Your task to perform on an android device: uninstall "HBO Max: Stream TV & Movies" Image 0: 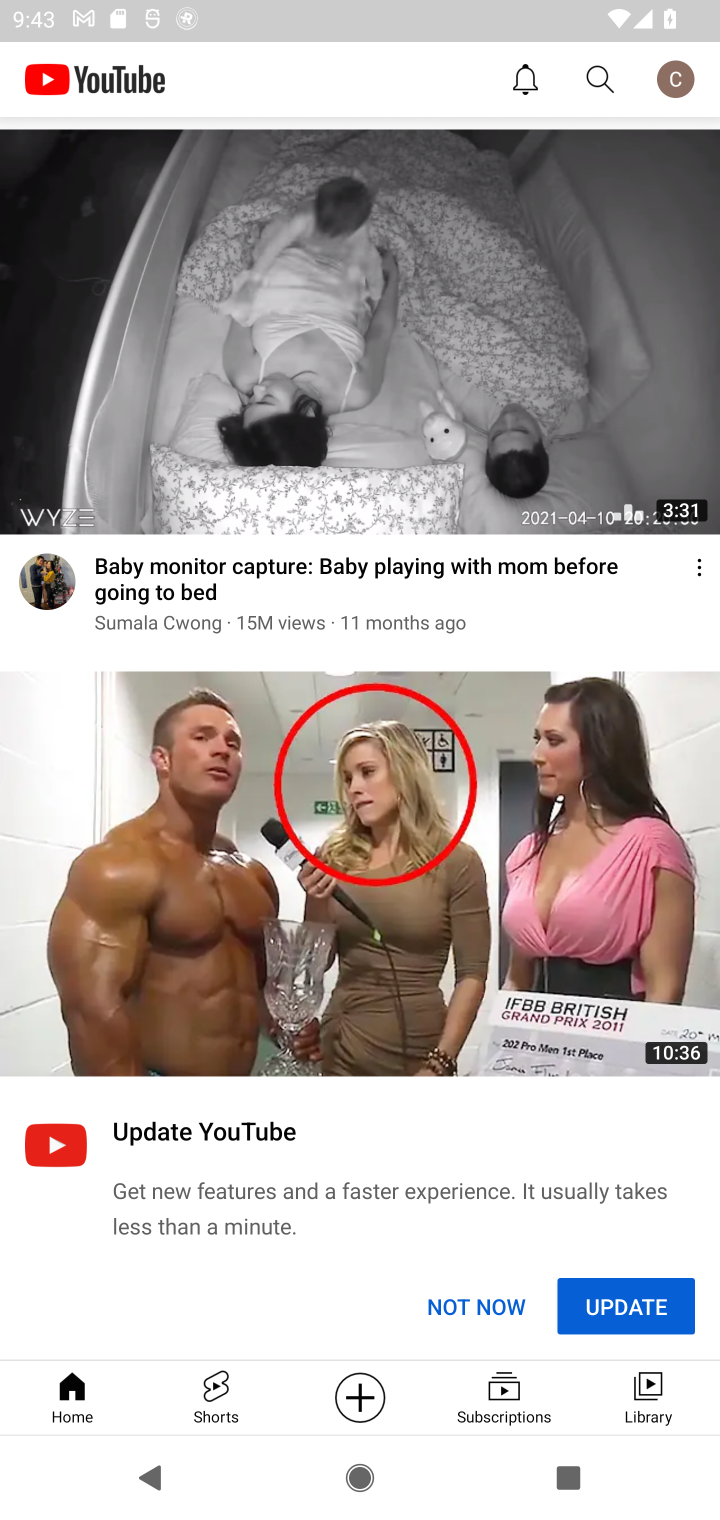
Step 0: press home button
Your task to perform on an android device: uninstall "HBO Max: Stream TV & Movies" Image 1: 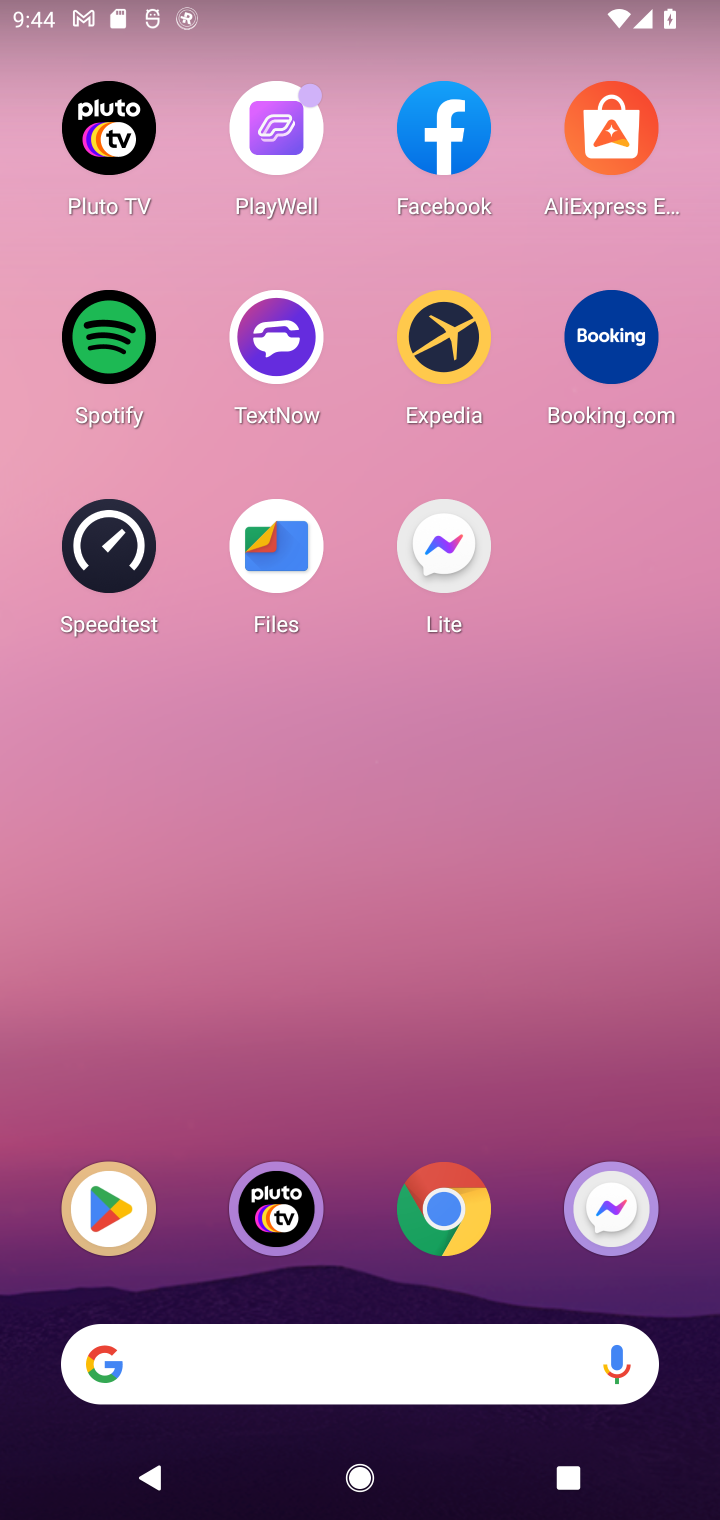
Step 1: drag from (279, 1351) to (403, 239)
Your task to perform on an android device: uninstall "HBO Max: Stream TV & Movies" Image 2: 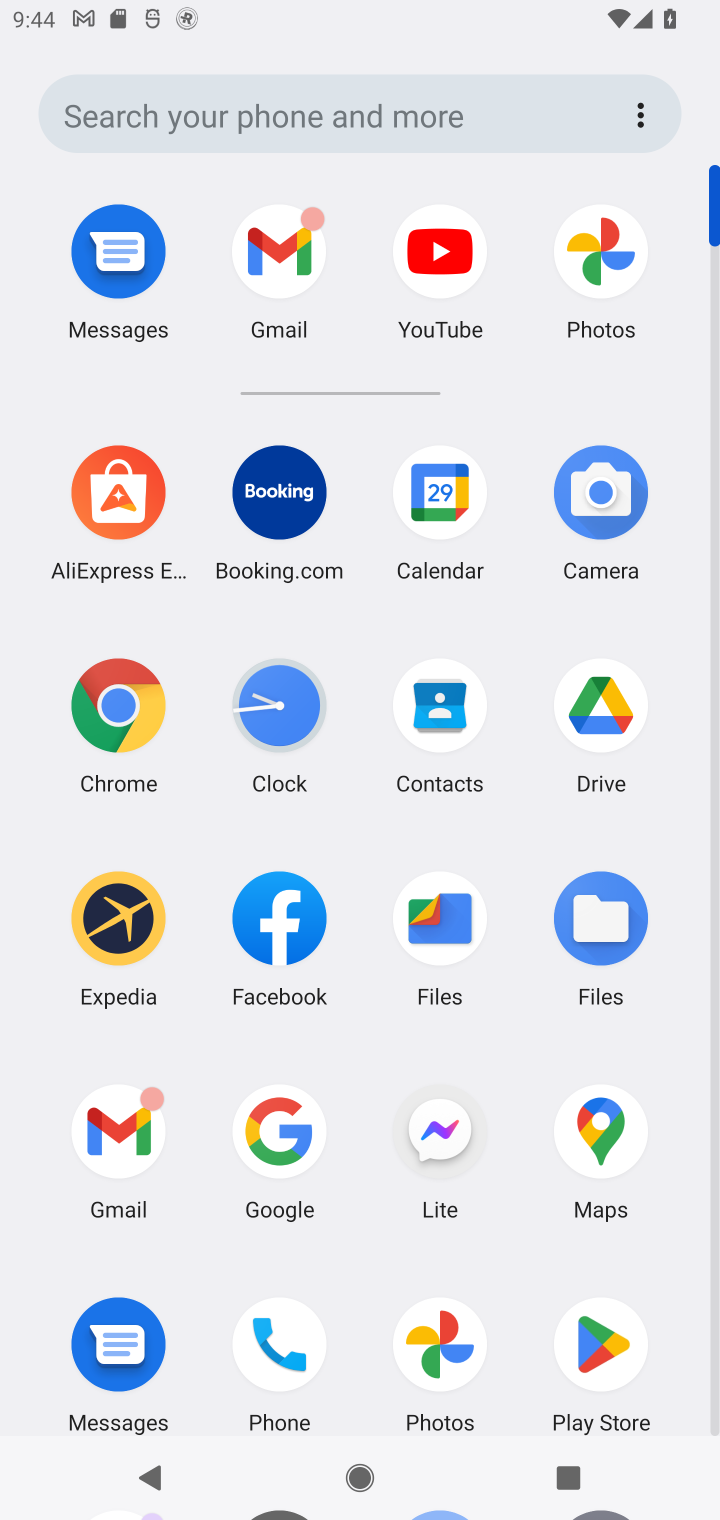
Step 2: drag from (359, 1249) to (353, 730)
Your task to perform on an android device: uninstall "HBO Max: Stream TV & Movies" Image 3: 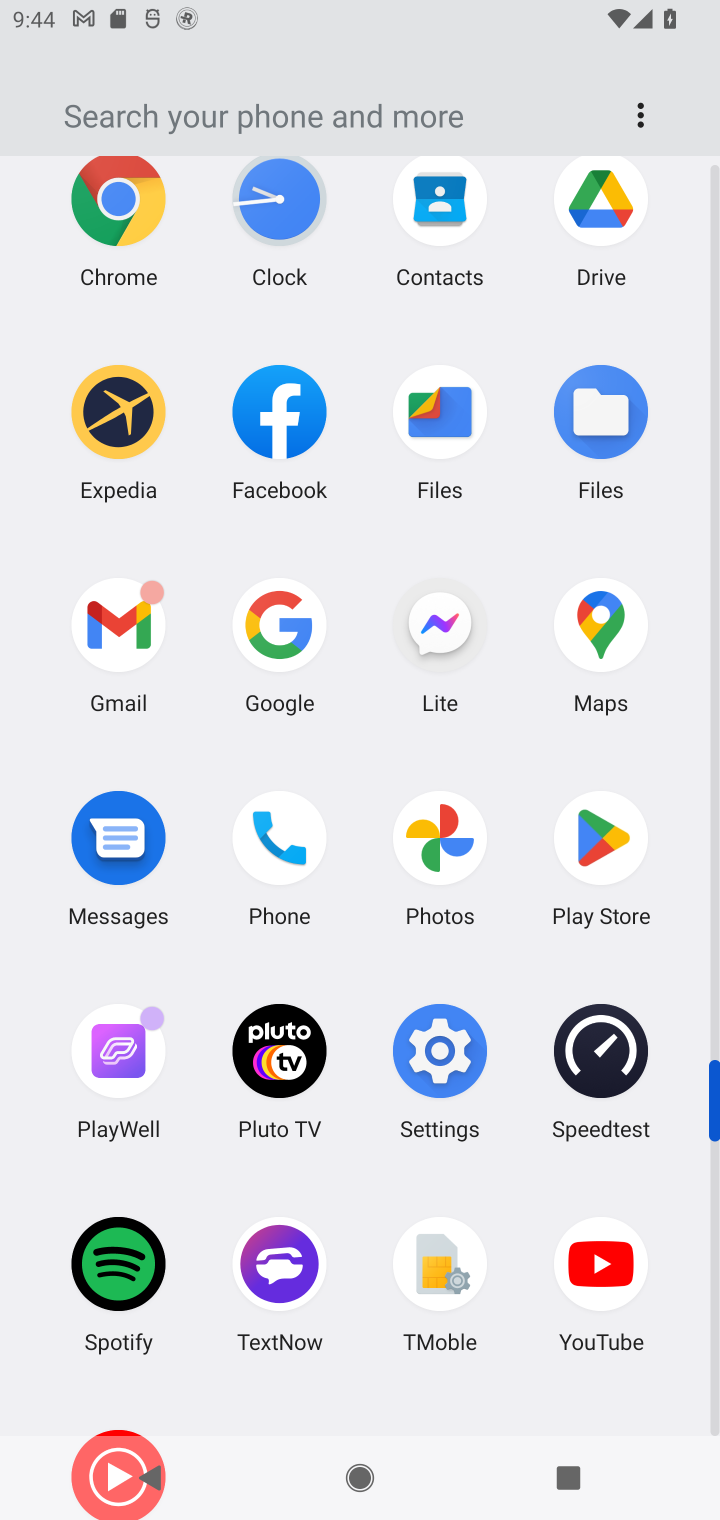
Step 3: click (593, 856)
Your task to perform on an android device: uninstall "HBO Max: Stream TV & Movies" Image 4: 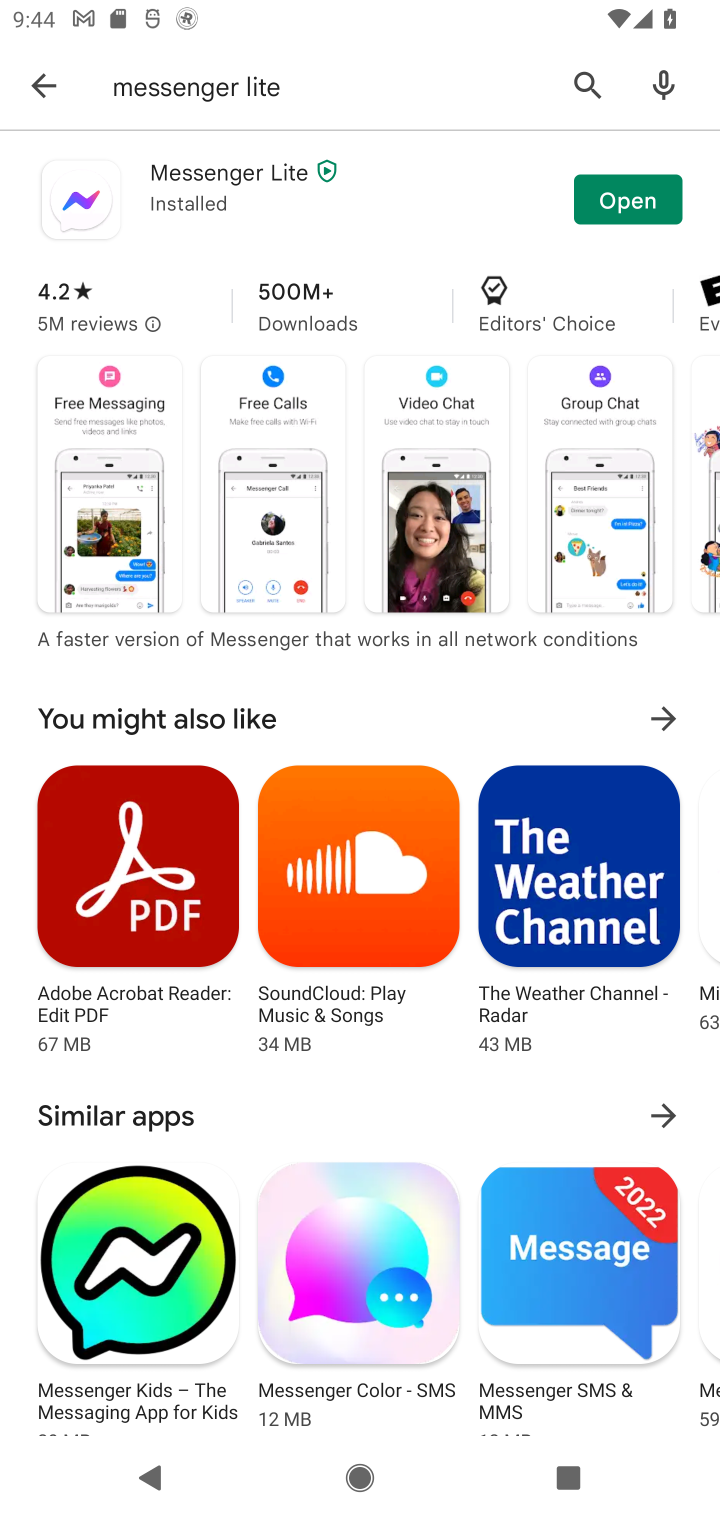
Step 4: click (521, 103)
Your task to perform on an android device: uninstall "HBO Max: Stream TV & Movies" Image 5: 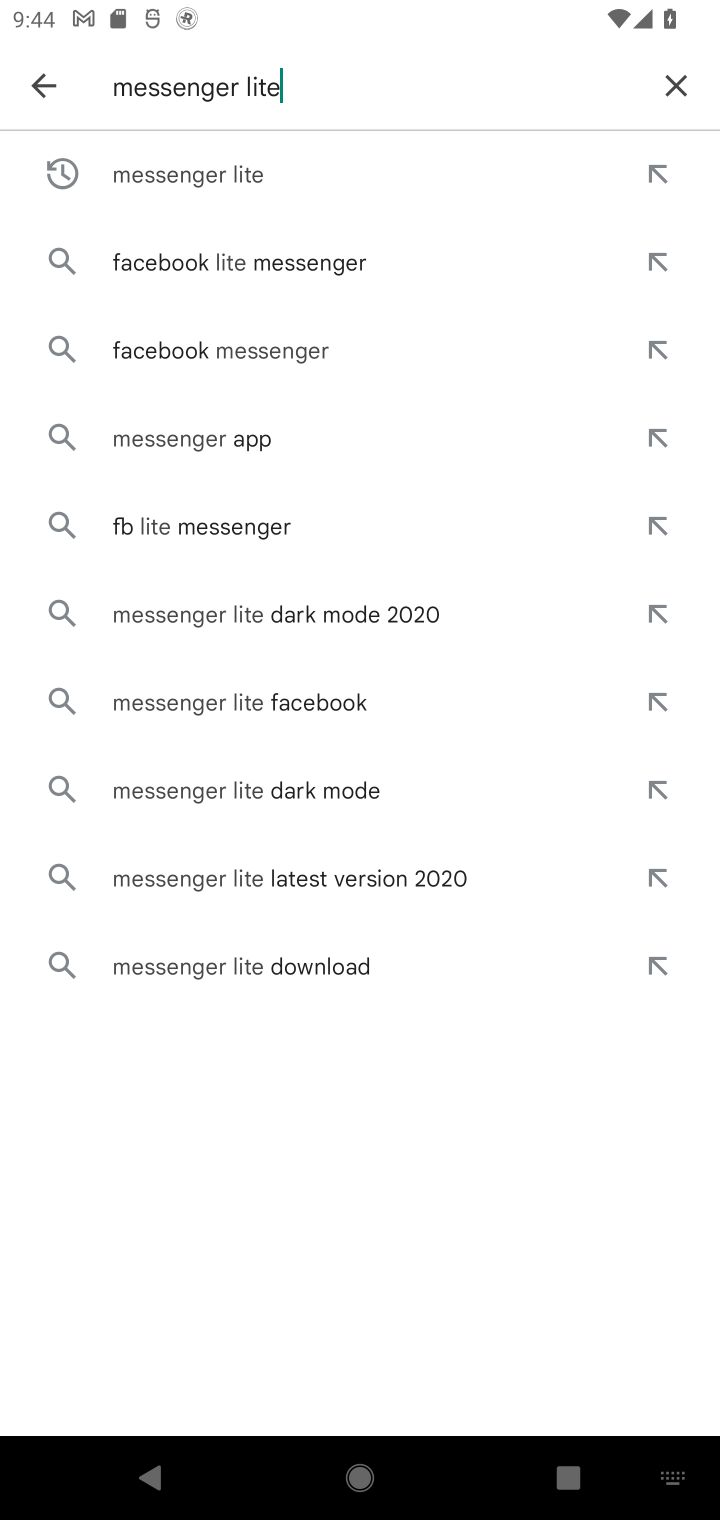
Step 5: click (678, 100)
Your task to perform on an android device: uninstall "HBO Max: Stream TV & Movies" Image 6: 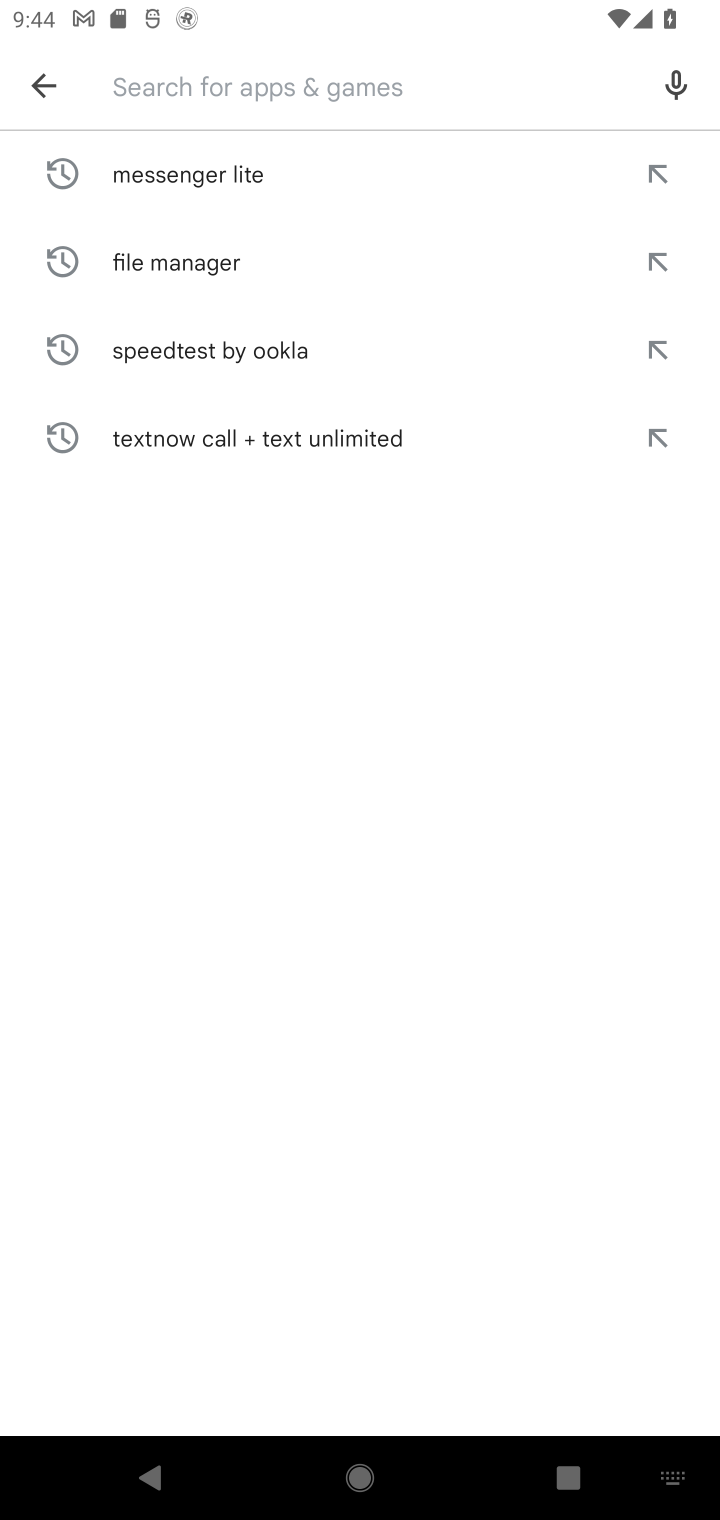
Step 6: click (265, 88)
Your task to perform on an android device: uninstall "HBO Max: Stream TV & Movies" Image 7: 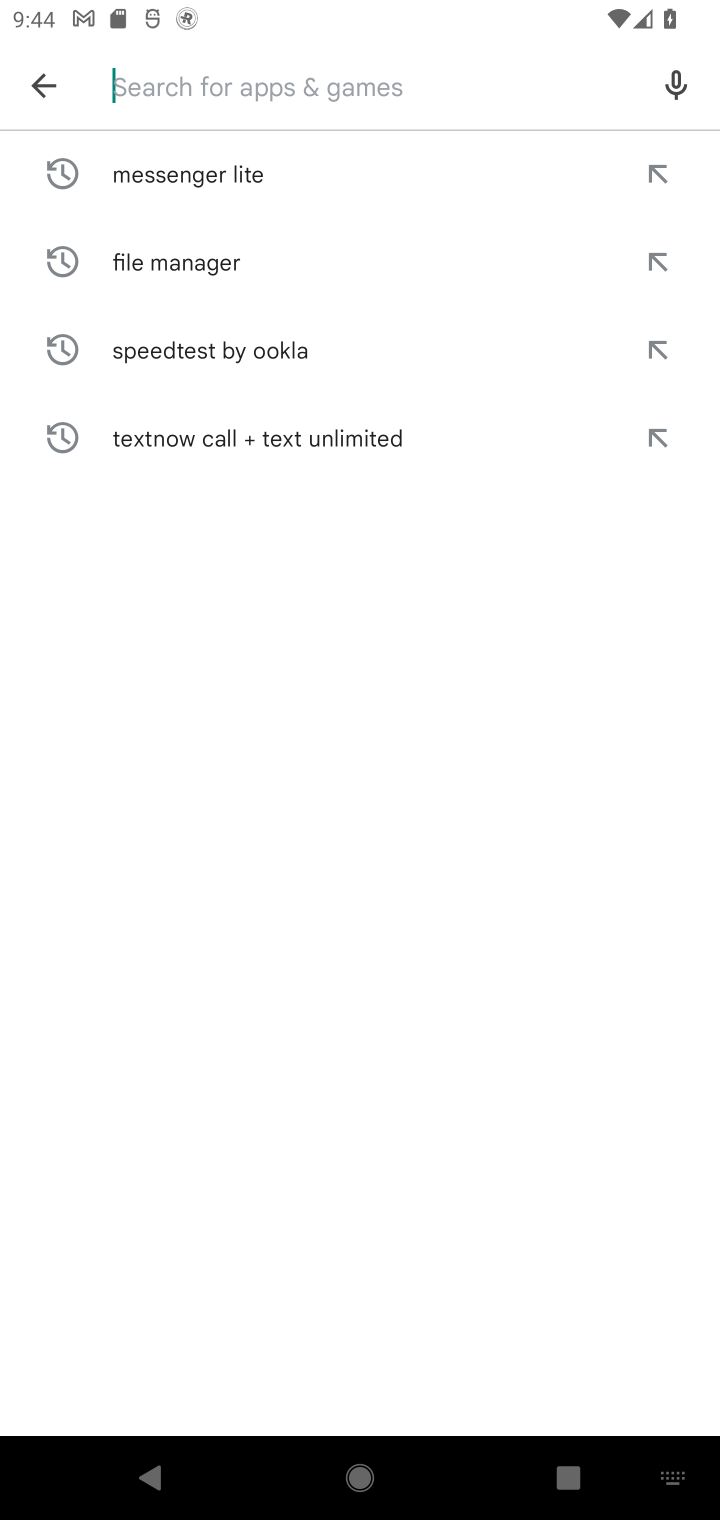
Step 7: type "HBO Max: Stream TV & Movies"
Your task to perform on an android device: uninstall "HBO Max: Stream TV & Movies" Image 8: 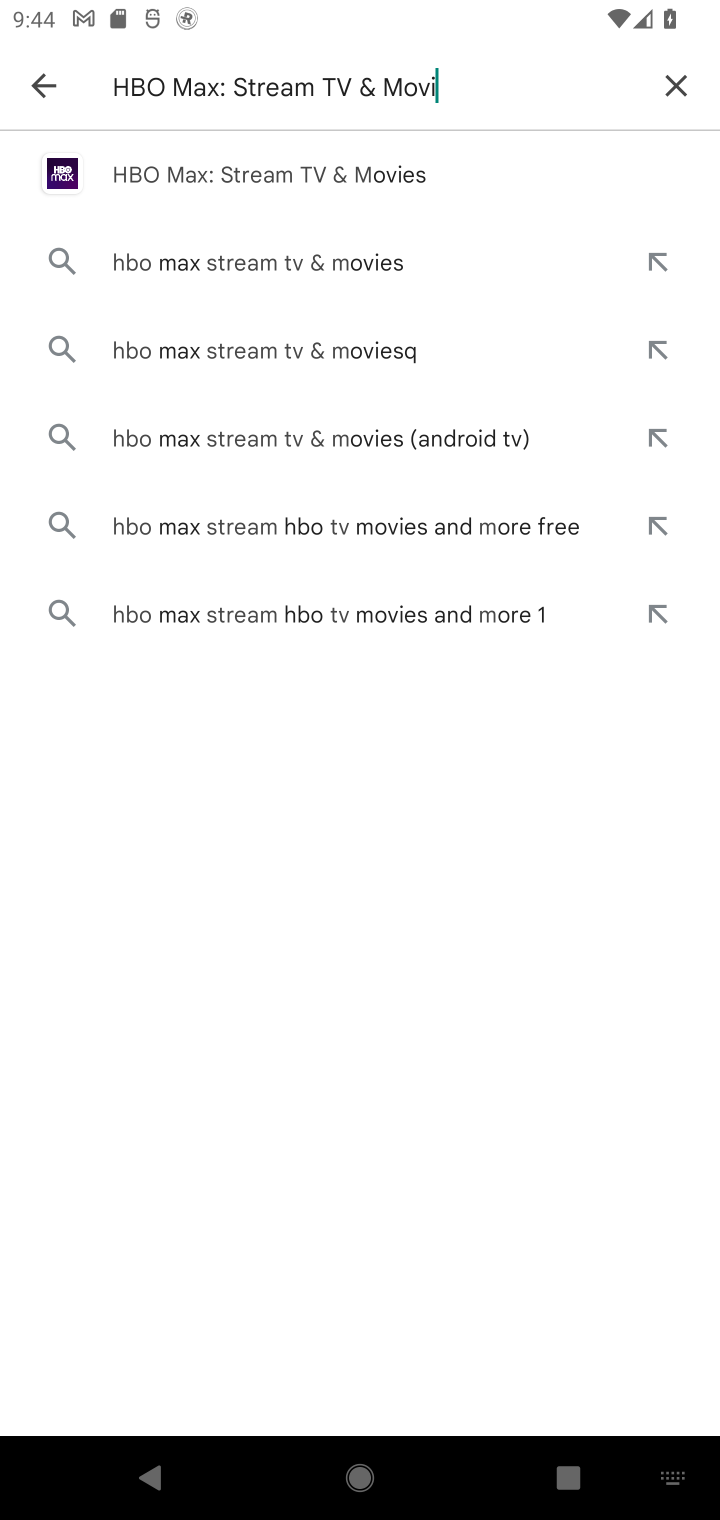
Step 8: type ""
Your task to perform on an android device: uninstall "HBO Max: Stream TV & Movies" Image 9: 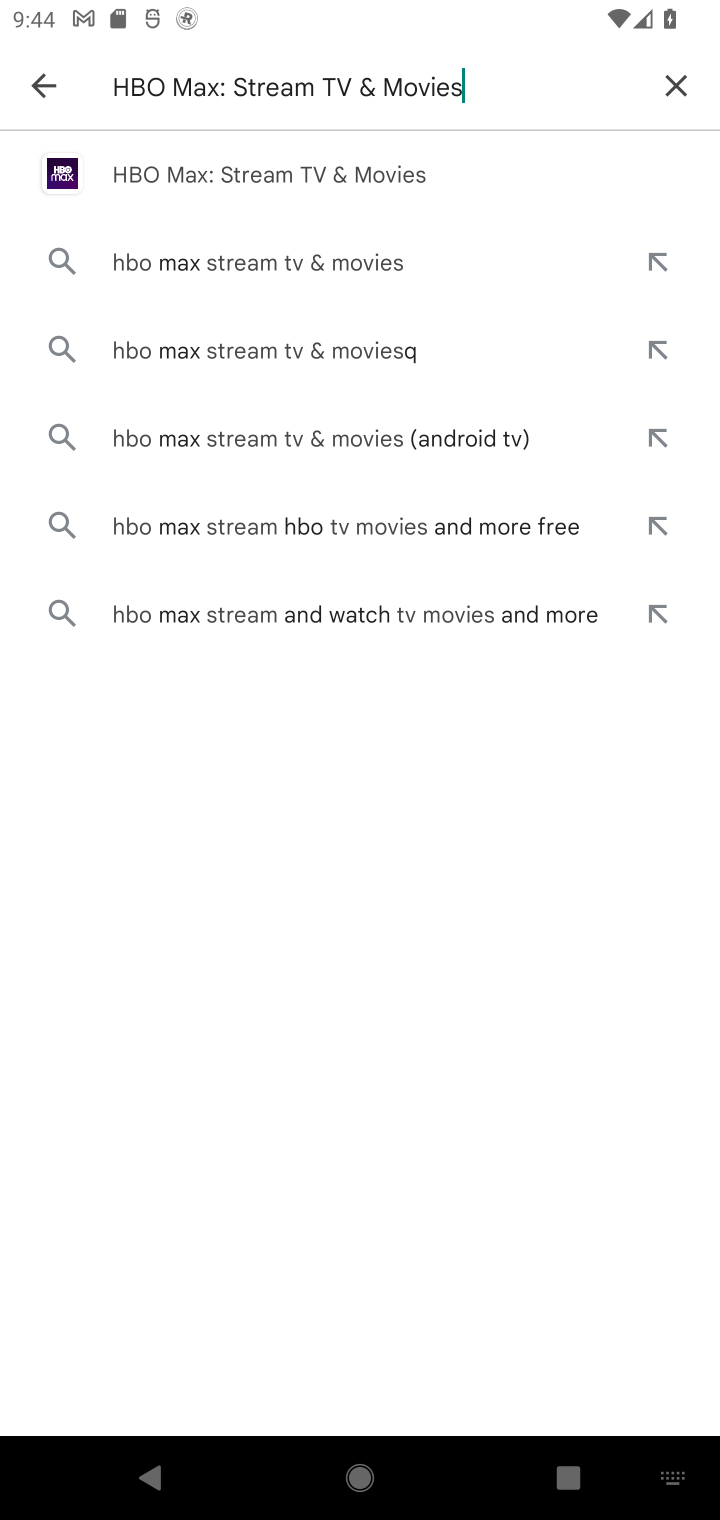
Step 9: click (296, 170)
Your task to perform on an android device: uninstall "HBO Max: Stream TV & Movies" Image 10: 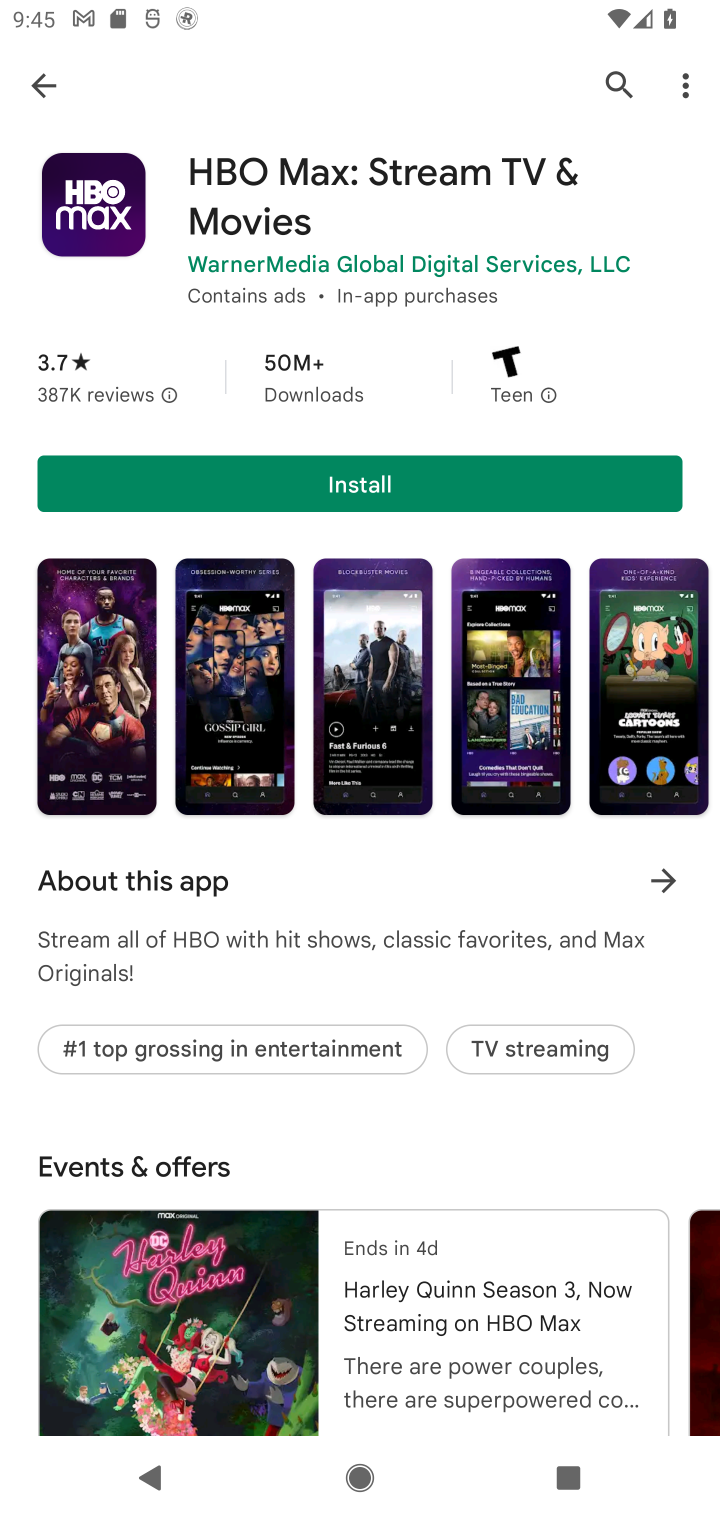
Step 10: task complete